Your task to perform on an android device: Search for seafood restaurants on Google Maps Image 0: 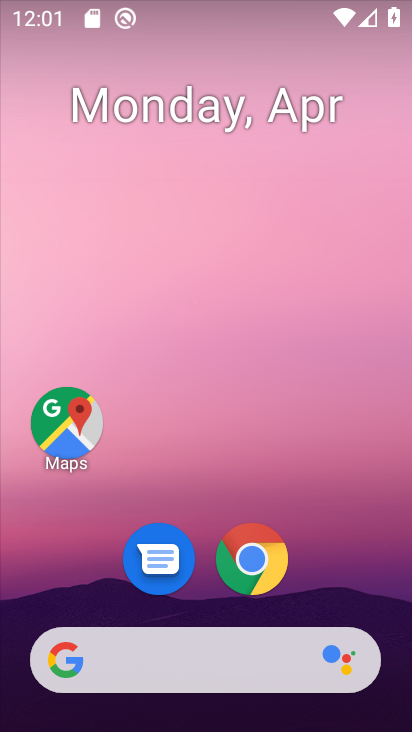
Step 0: click (80, 444)
Your task to perform on an android device: Search for seafood restaurants on Google Maps Image 1: 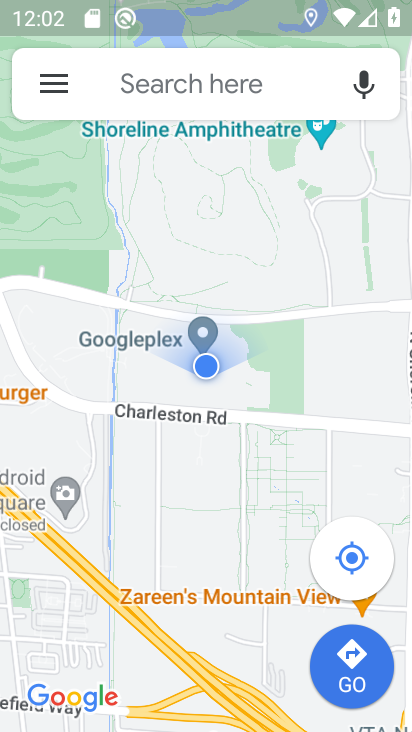
Step 1: click (180, 76)
Your task to perform on an android device: Search for seafood restaurants on Google Maps Image 2: 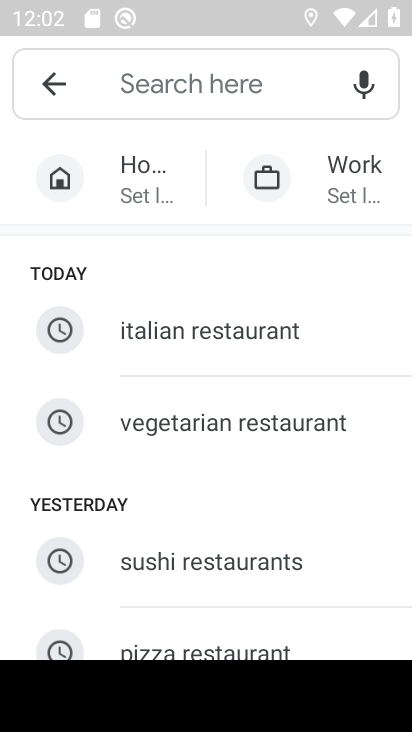
Step 2: drag from (270, 618) to (301, 310)
Your task to perform on an android device: Search for seafood restaurants on Google Maps Image 3: 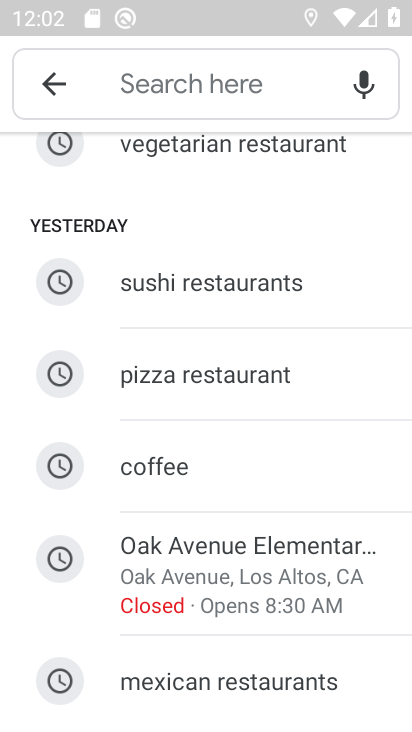
Step 3: drag from (249, 613) to (276, 310)
Your task to perform on an android device: Search for seafood restaurants on Google Maps Image 4: 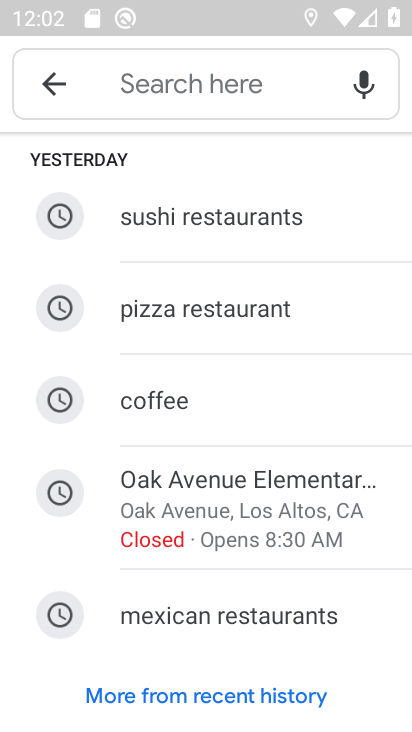
Step 4: click (185, 91)
Your task to perform on an android device: Search for seafood restaurants on Google Maps Image 5: 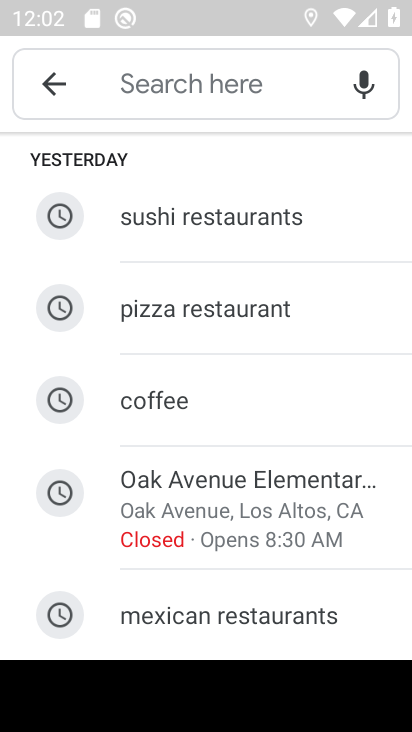
Step 5: type "seafood restaurants "
Your task to perform on an android device: Search for seafood restaurants on Google Maps Image 6: 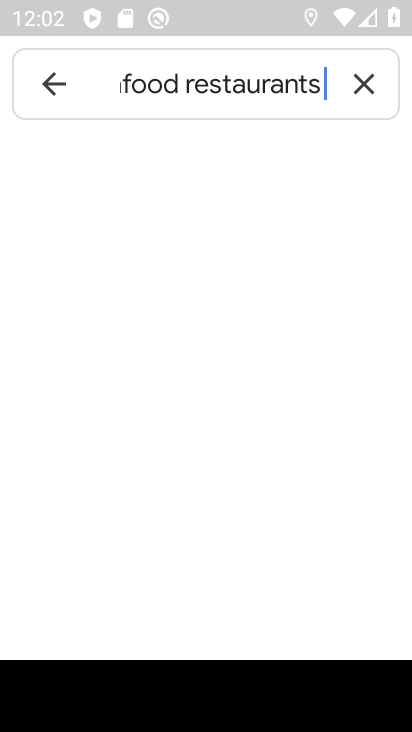
Step 6: type ""
Your task to perform on an android device: Search for seafood restaurants on Google Maps Image 7: 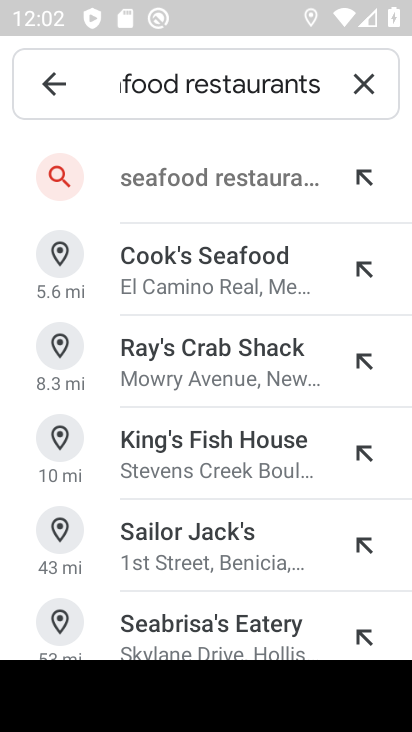
Step 7: click (237, 193)
Your task to perform on an android device: Search for seafood restaurants on Google Maps Image 8: 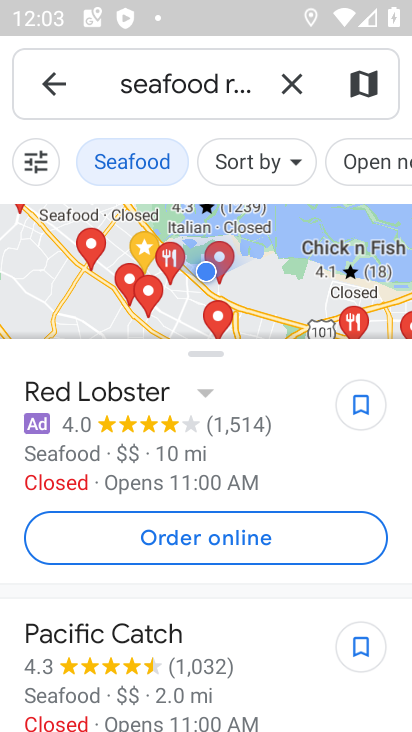
Step 8: task complete